Your task to perform on an android device: Open the web browser Image 0: 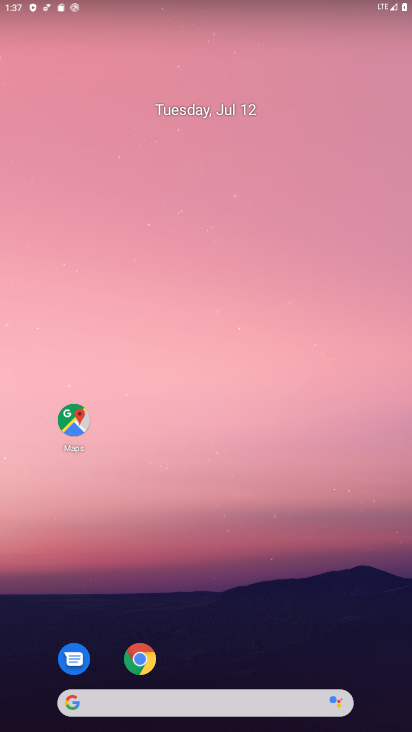
Step 0: drag from (231, 678) to (256, 122)
Your task to perform on an android device: Open the web browser Image 1: 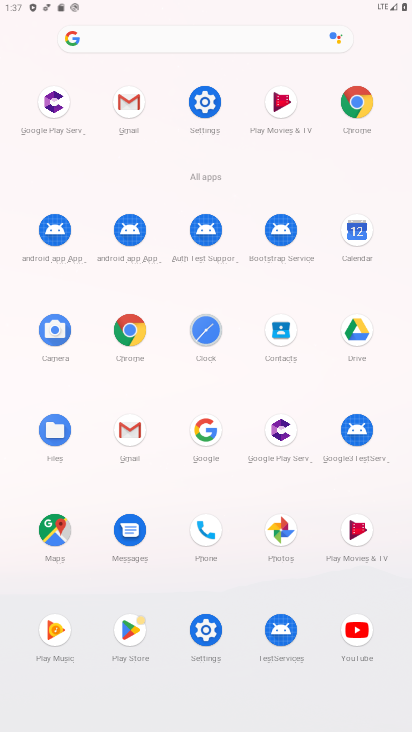
Step 1: click (208, 431)
Your task to perform on an android device: Open the web browser Image 2: 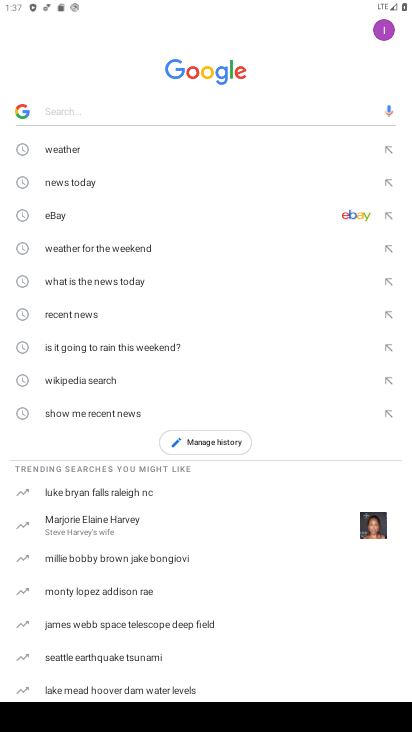
Step 2: task complete